Your task to perform on an android device: Go to eBay Image 0: 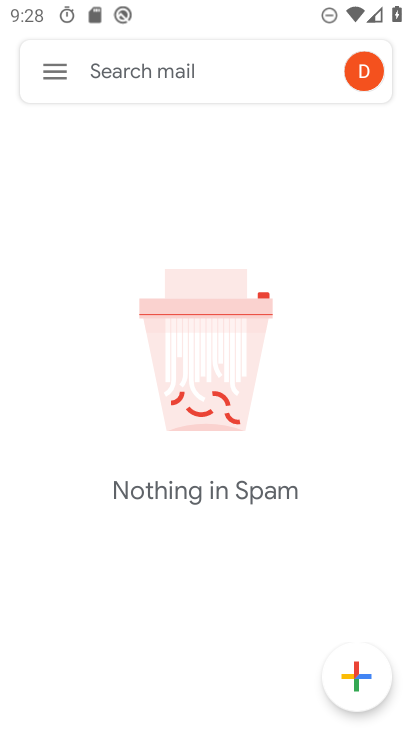
Step 0: press home button
Your task to perform on an android device: Go to eBay Image 1: 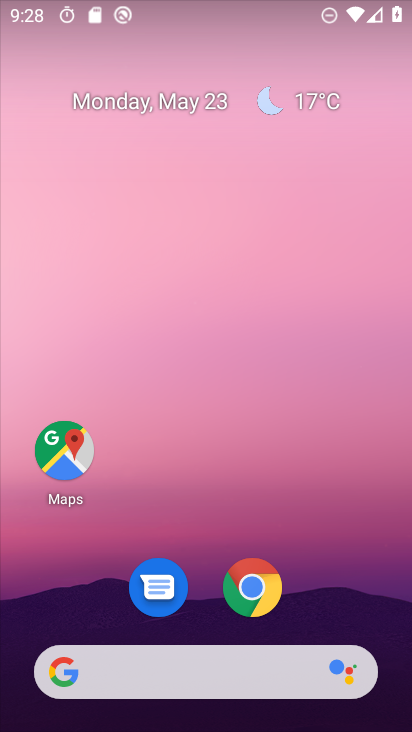
Step 1: click (263, 575)
Your task to perform on an android device: Go to eBay Image 2: 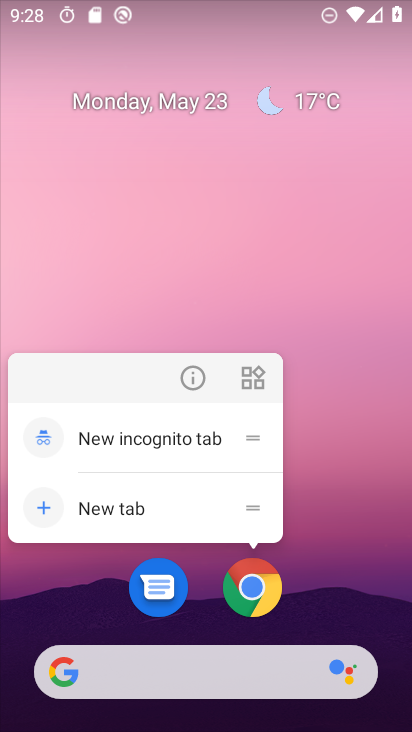
Step 2: click (245, 579)
Your task to perform on an android device: Go to eBay Image 3: 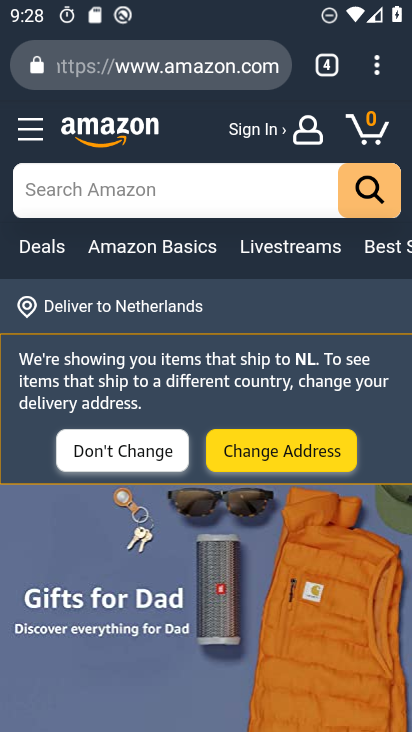
Step 3: click (333, 61)
Your task to perform on an android device: Go to eBay Image 4: 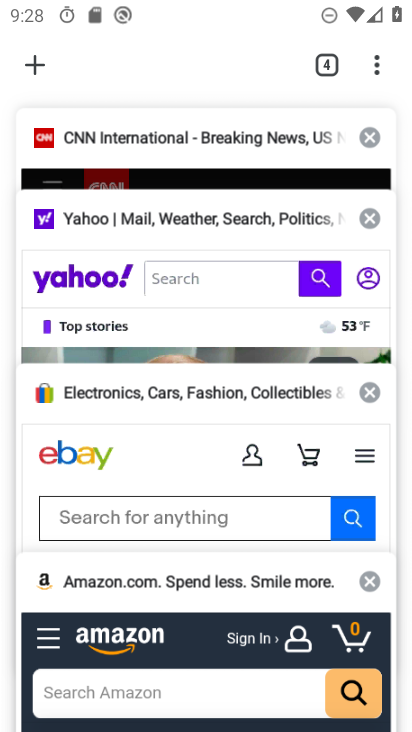
Step 4: click (119, 416)
Your task to perform on an android device: Go to eBay Image 5: 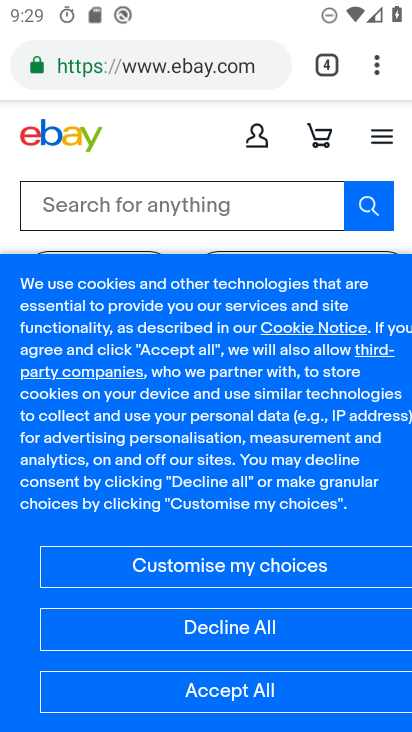
Step 5: task complete